Your task to perform on an android device: Search for custom wallets on Etsy. Image 0: 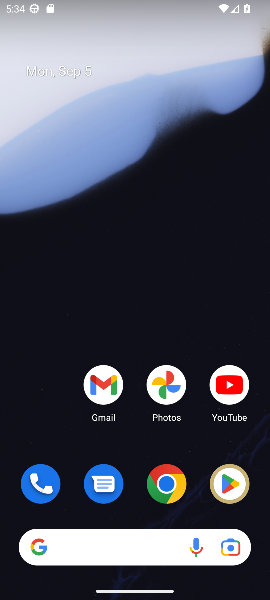
Step 0: click (162, 481)
Your task to perform on an android device: Search for custom wallets on Etsy. Image 1: 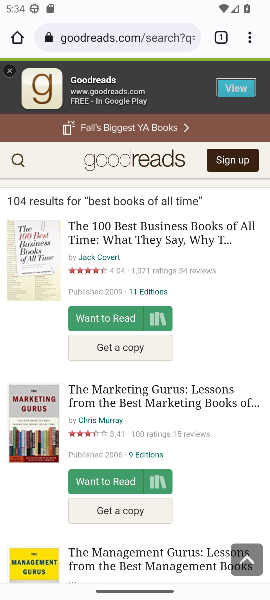
Step 1: click (163, 37)
Your task to perform on an android device: Search for custom wallets on Etsy. Image 2: 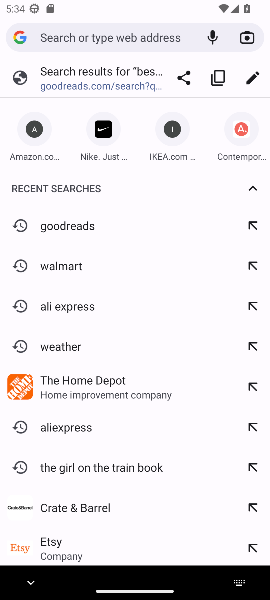
Step 2: type " Etsy"
Your task to perform on an android device: Search for custom wallets on Etsy. Image 3: 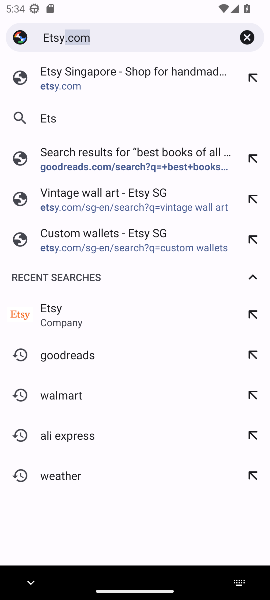
Step 3: press enter
Your task to perform on an android device: Search for custom wallets on Etsy. Image 4: 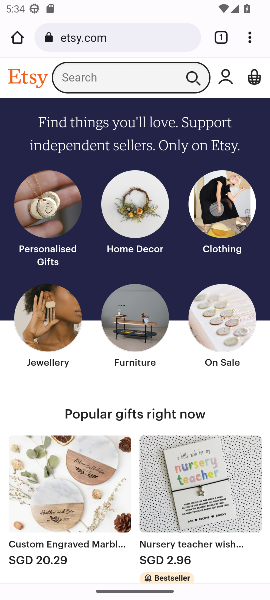
Step 4: click (155, 76)
Your task to perform on an android device: Search for custom wallets on Etsy. Image 5: 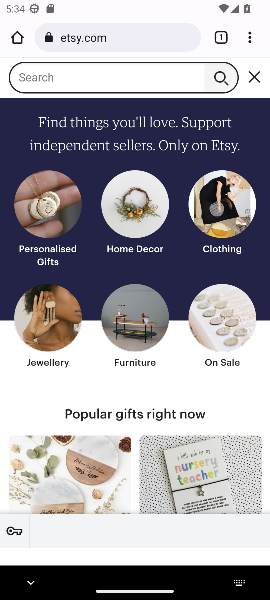
Step 5: press enter
Your task to perform on an android device: Search for custom wallets on Etsy. Image 6: 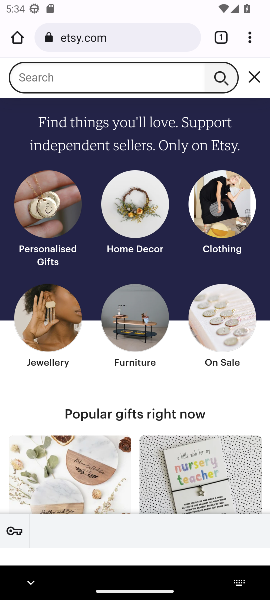
Step 6: type "custom wallets "
Your task to perform on an android device: Search for custom wallets on Etsy. Image 7: 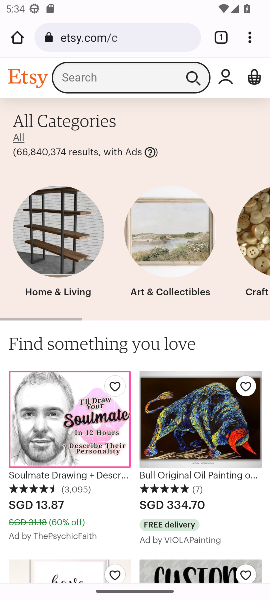
Step 7: drag from (156, 465) to (234, 168)
Your task to perform on an android device: Search for custom wallets on Etsy. Image 8: 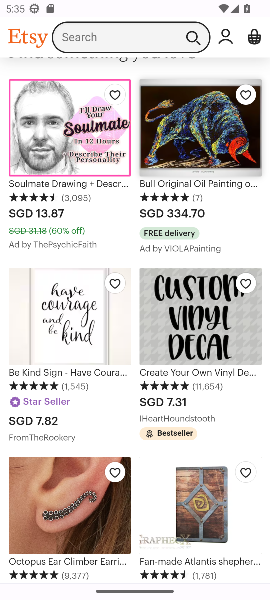
Step 8: drag from (192, 228) to (103, 549)
Your task to perform on an android device: Search for custom wallets on Etsy. Image 9: 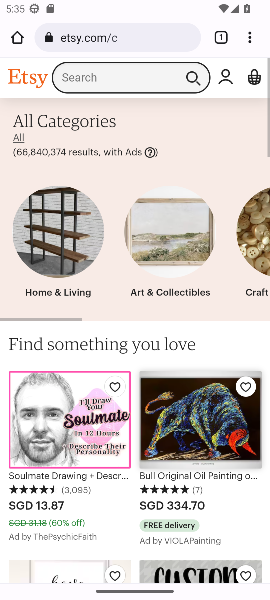
Step 9: drag from (120, 271) to (95, 413)
Your task to perform on an android device: Search for custom wallets on Etsy. Image 10: 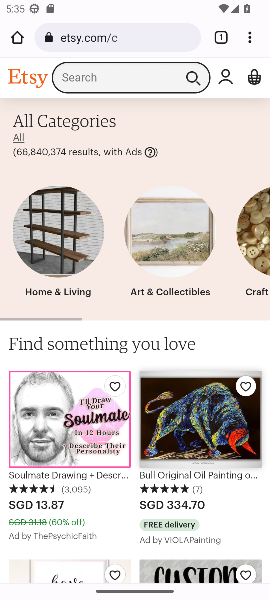
Step 10: click (150, 68)
Your task to perform on an android device: Search for custom wallets on Etsy. Image 11: 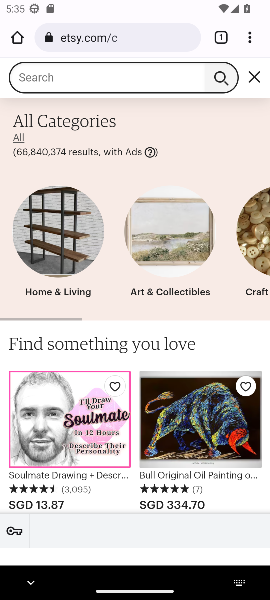
Step 11: type "custom wallets "
Your task to perform on an android device: Search for custom wallets on Etsy. Image 12: 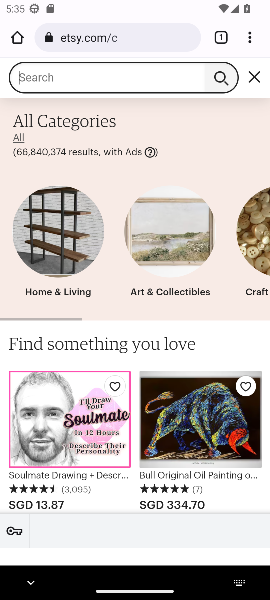
Step 12: press enter
Your task to perform on an android device: Search for custom wallets on Etsy. Image 13: 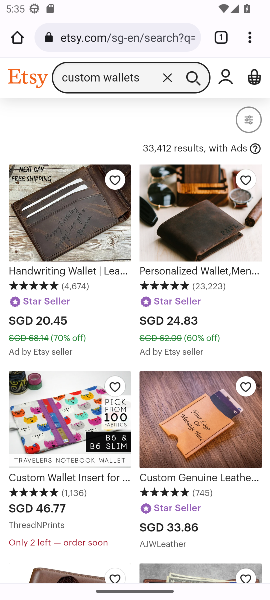
Step 13: task complete